Your task to perform on an android device: check android version Image 0: 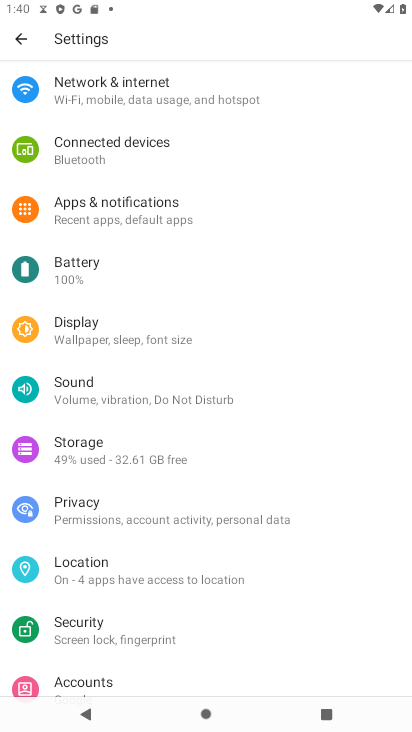
Step 0: press home button
Your task to perform on an android device: check android version Image 1: 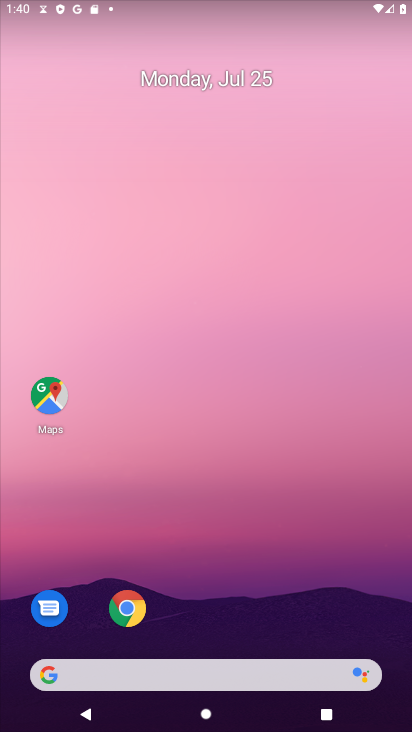
Step 1: drag from (211, 677) to (370, 10)
Your task to perform on an android device: check android version Image 2: 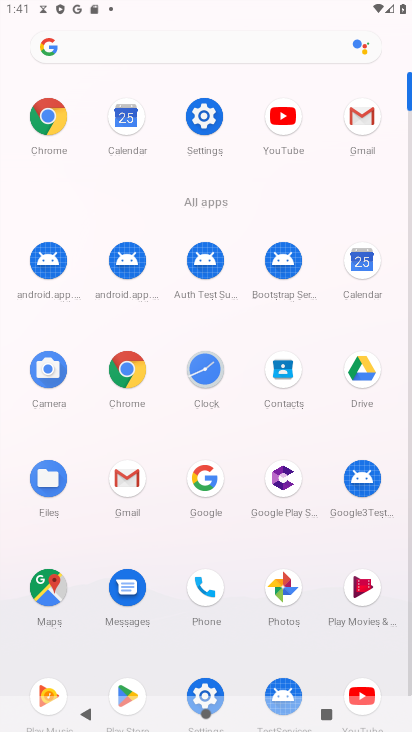
Step 2: click (205, 115)
Your task to perform on an android device: check android version Image 3: 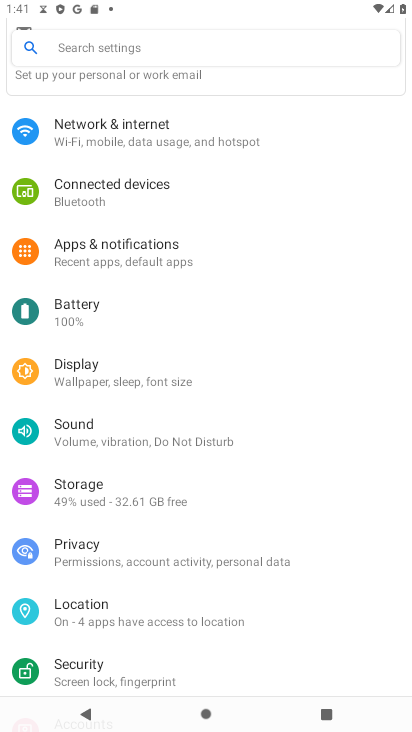
Step 3: drag from (109, 528) to (140, 411)
Your task to perform on an android device: check android version Image 4: 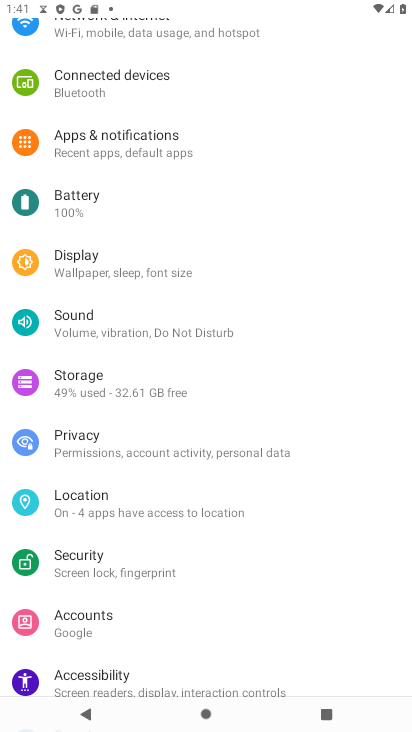
Step 4: drag from (136, 592) to (156, 446)
Your task to perform on an android device: check android version Image 5: 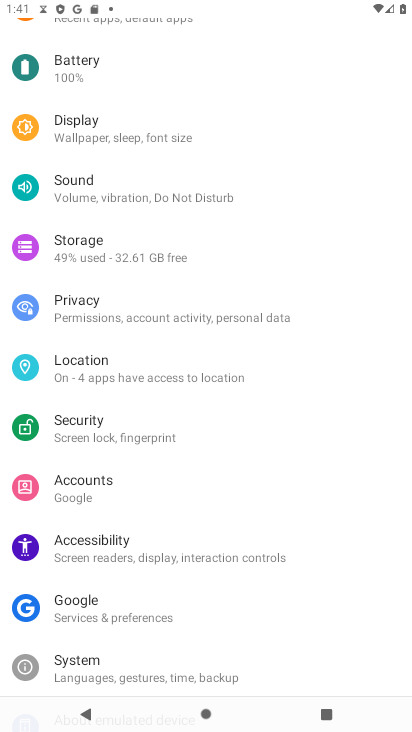
Step 5: drag from (125, 638) to (178, 414)
Your task to perform on an android device: check android version Image 6: 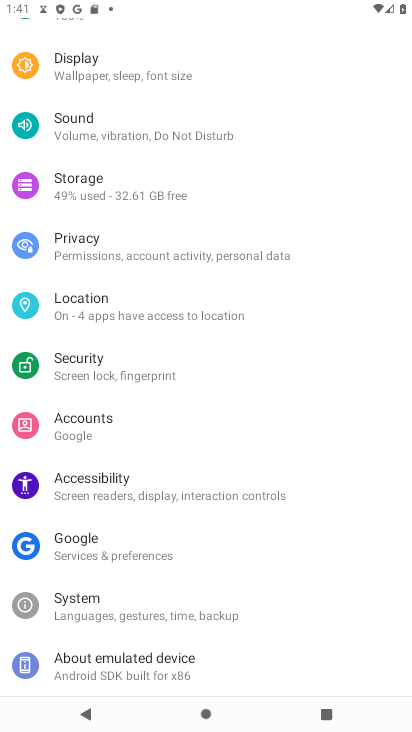
Step 6: click (103, 664)
Your task to perform on an android device: check android version Image 7: 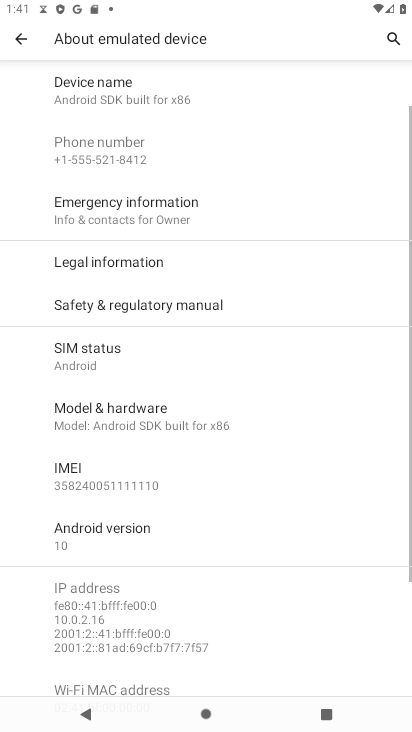
Step 7: click (97, 523)
Your task to perform on an android device: check android version Image 8: 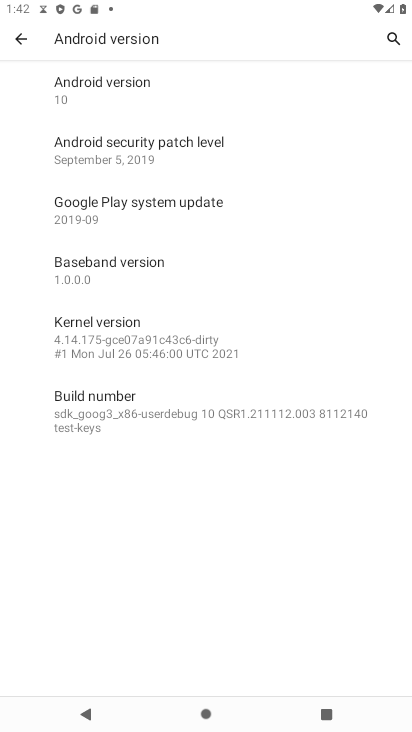
Step 8: task complete